Your task to perform on an android device: turn off wifi Image 0: 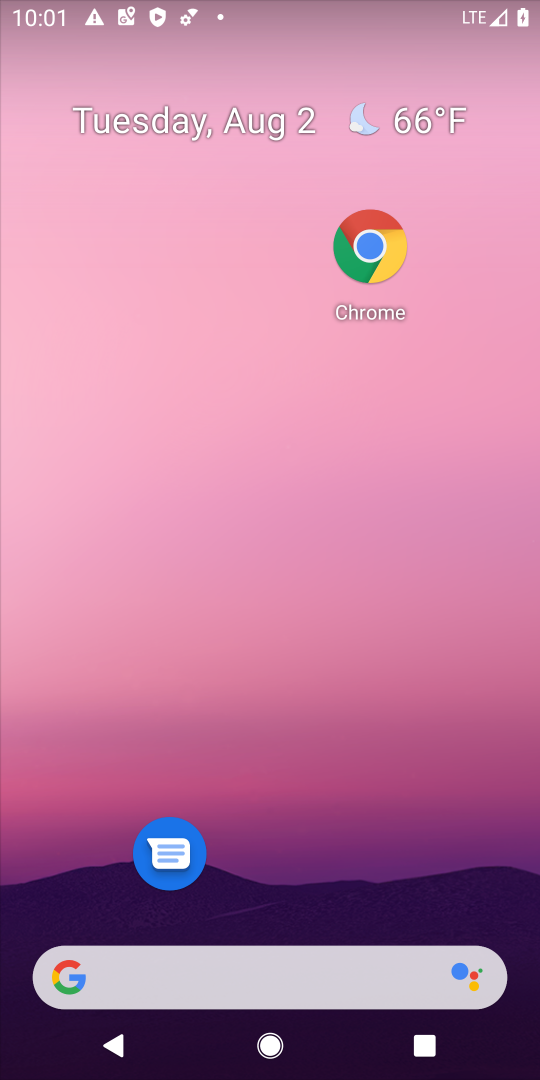
Step 0: drag from (255, 887) to (213, 79)
Your task to perform on an android device: turn off wifi Image 1: 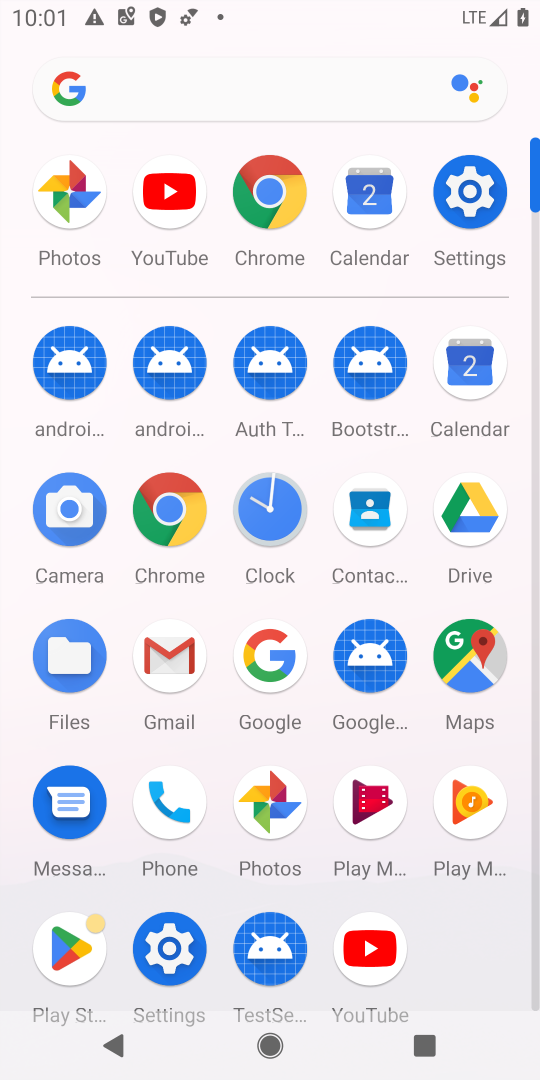
Step 1: click (171, 953)
Your task to perform on an android device: turn off wifi Image 2: 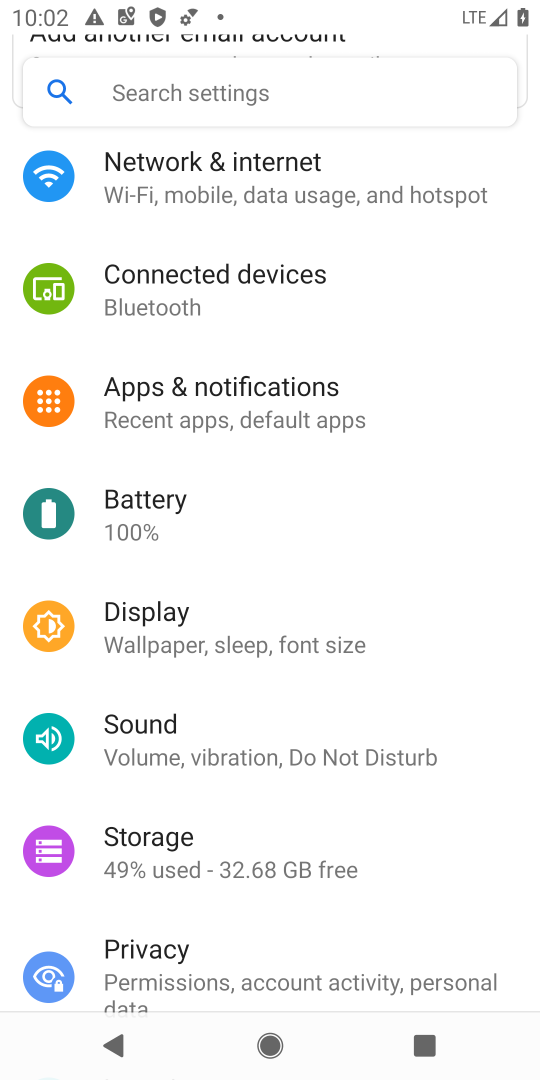
Step 2: click (192, 206)
Your task to perform on an android device: turn off wifi Image 3: 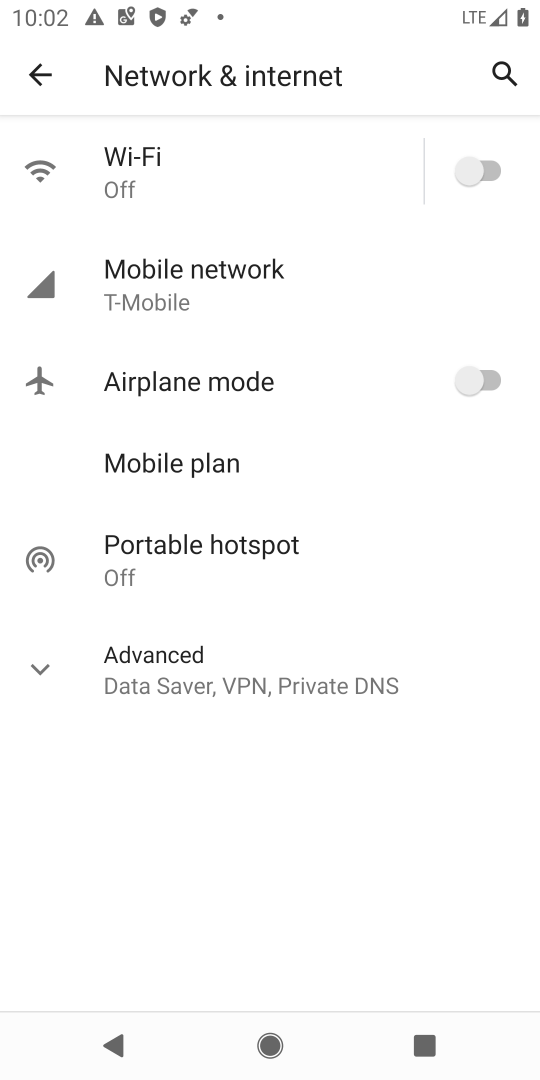
Step 3: click (159, 155)
Your task to perform on an android device: turn off wifi Image 4: 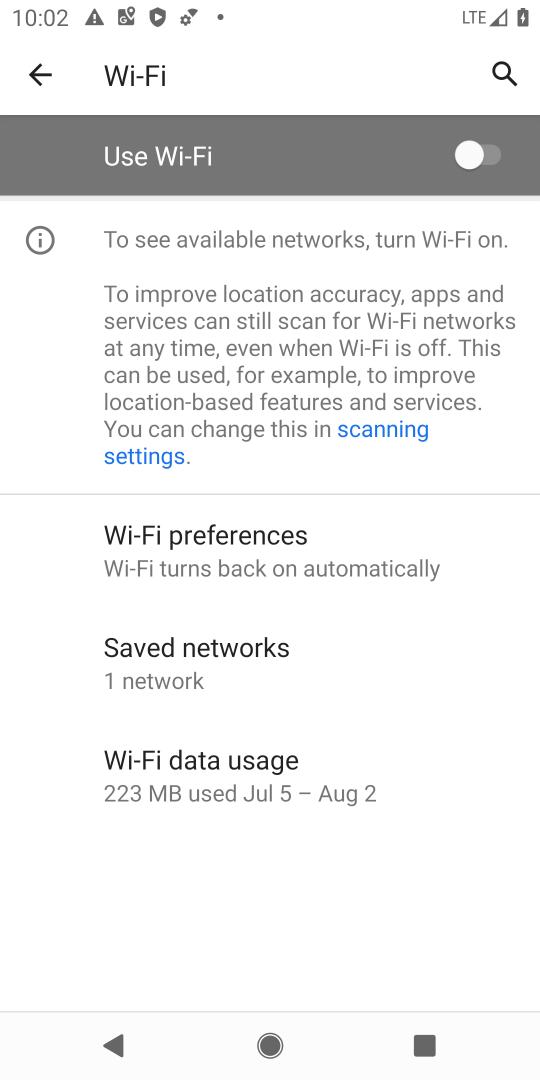
Step 4: task complete